Your task to perform on an android device: turn off priority inbox in the gmail app Image 0: 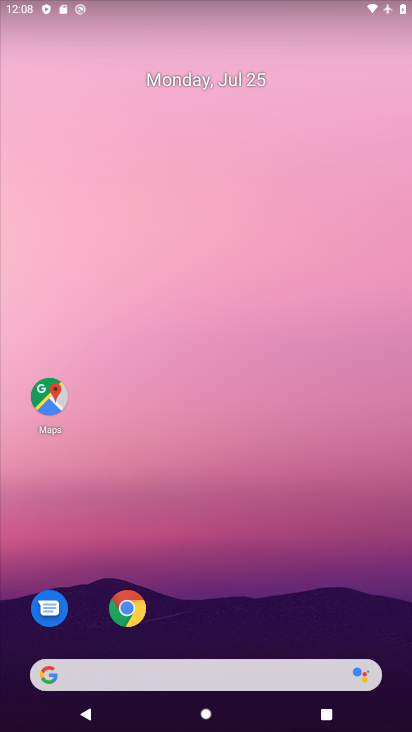
Step 0: drag from (231, 679) to (259, 61)
Your task to perform on an android device: turn off priority inbox in the gmail app Image 1: 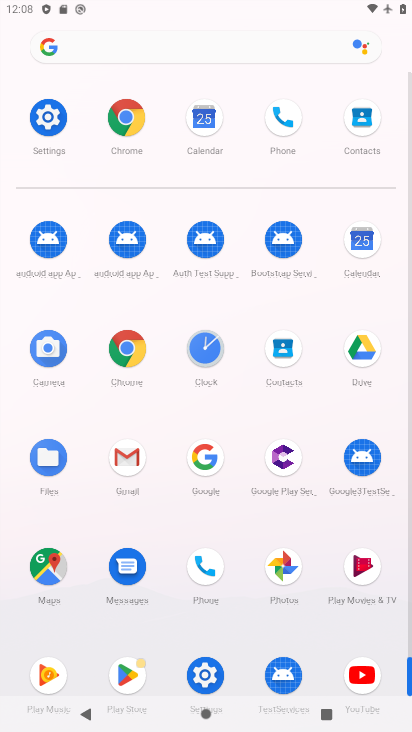
Step 1: click (121, 482)
Your task to perform on an android device: turn off priority inbox in the gmail app Image 2: 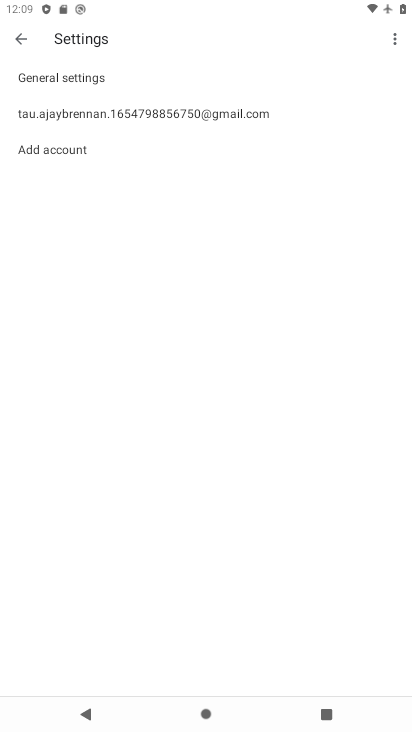
Step 2: click (81, 123)
Your task to perform on an android device: turn off priority inbox in the gmail app Image 3: 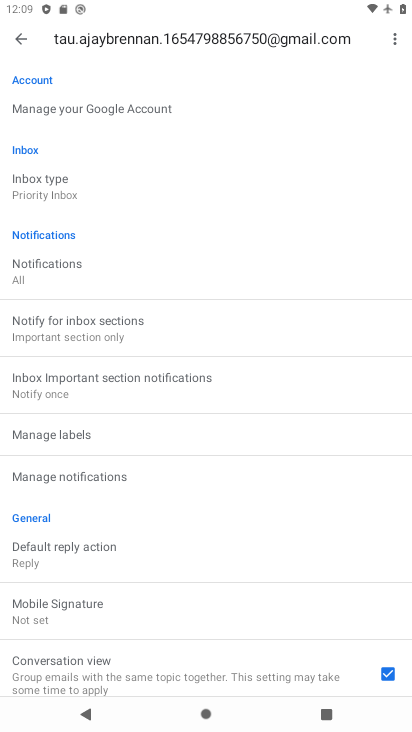
Step 3: click (52, 196)
Your task to perform on an android device: turn off priority inbox in the gmail app Image 4: 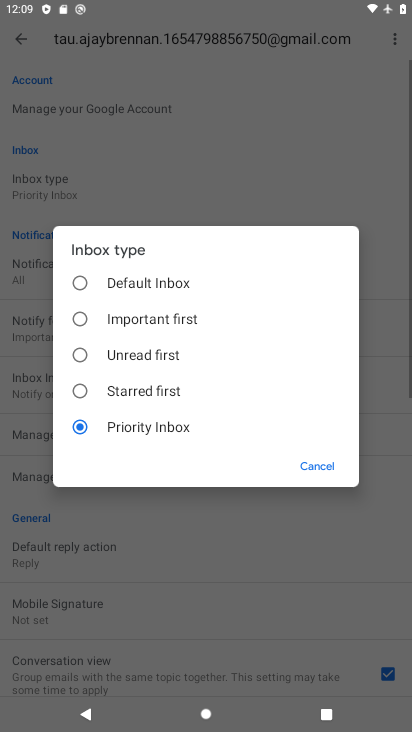
Step 4: click (110, 292)
Your task to perform on an android device: turn off priority inbox in the gmail app Image 5: 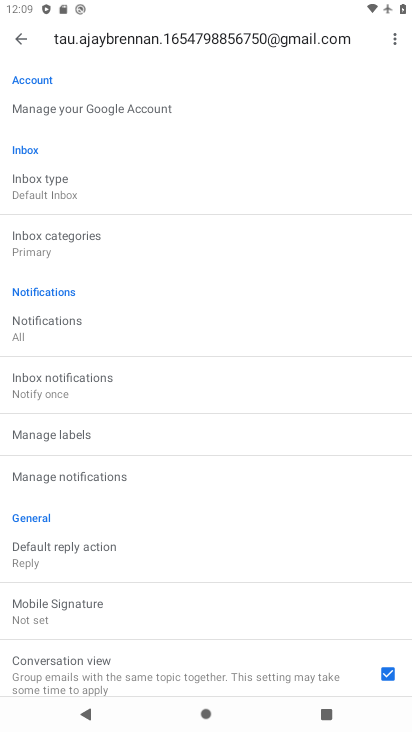
Step 5: task complete